Your task to perform on an android device: Turn off the flashlight Image 0: 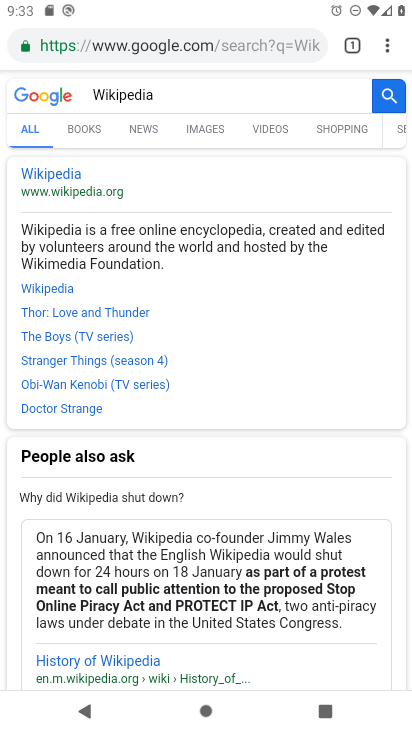
Step 0: press home button
Your task to perform on an android device: Turn off the flashlight Image 1: 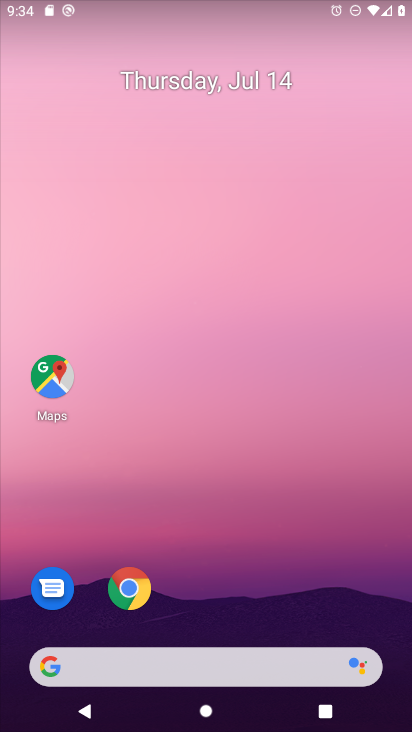
Step 1: drag from (321, 582) to (318, 52)
Your task to perform on an android device: Turn off the flashlight Image 2: 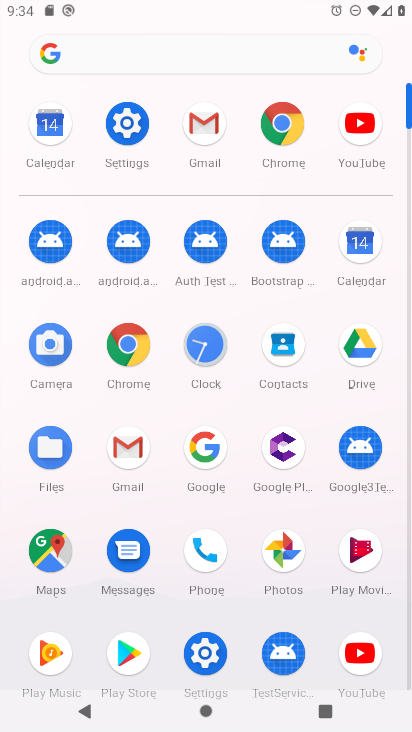
Step 2: click (127, 136)
Your task to perform on an android device: Turn off the flashlight Image 3: 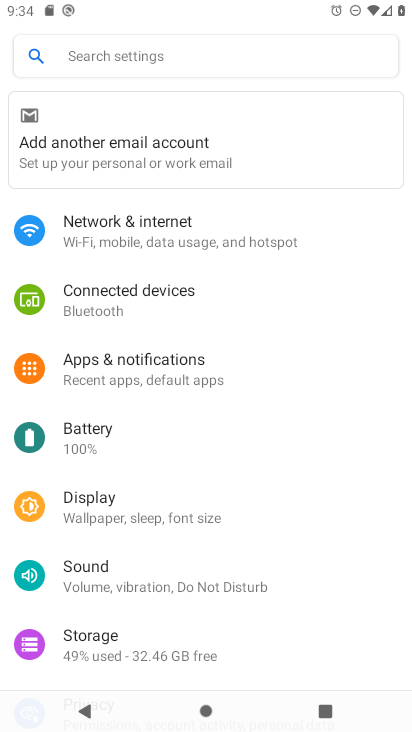
Step 3: task complete